Your task to perform on an android device: Go to Maps Image 0: 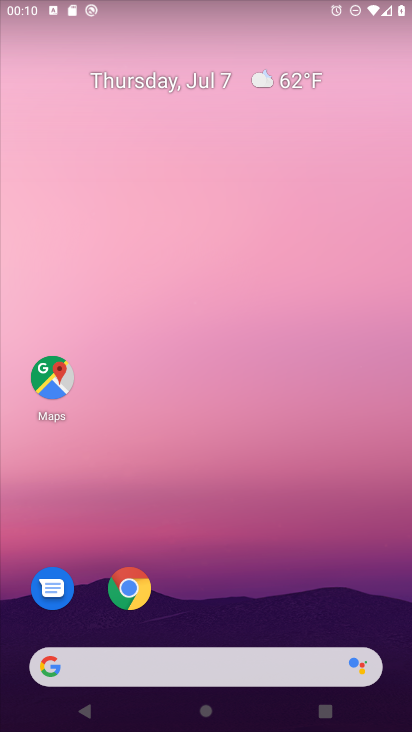
Step 0: click (52, 376)
Your task to perform on an android device: Go to Maps Image 1: 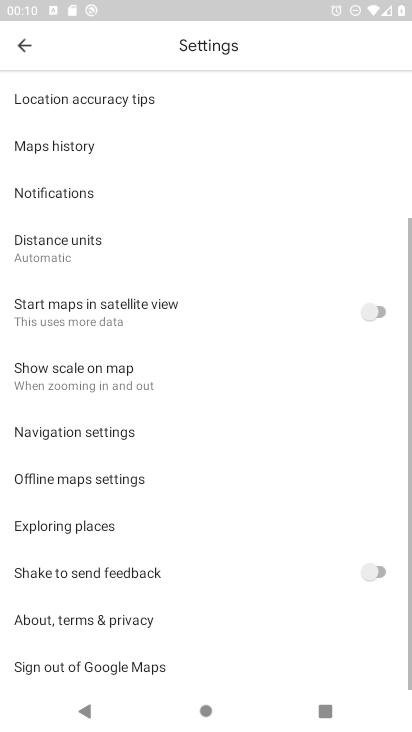
Step 1: task complete